Your task to perform on an android device: Do I have any events this weekend? Image 0: 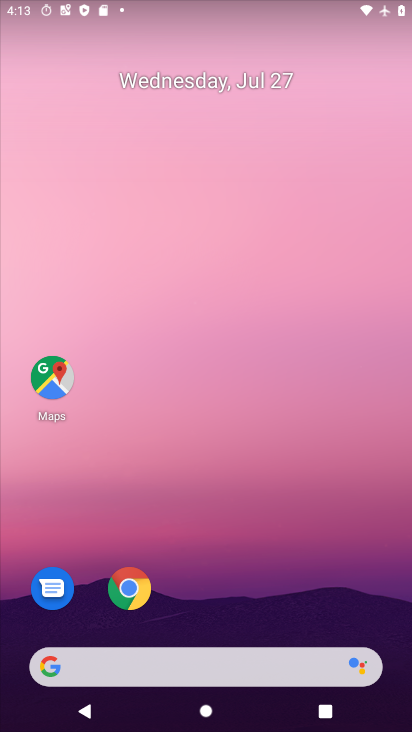
Step 0: press home button
Your task to perform on an android device: Do I have any events this weekend? Image 1: 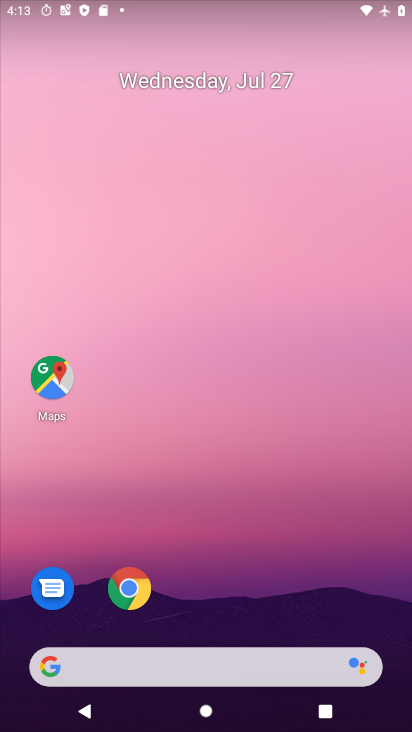
Step 1: drag from (240, 613) to (204, 129)
Your task to perform on an android device: Do I have any events this weekend? Image 2: 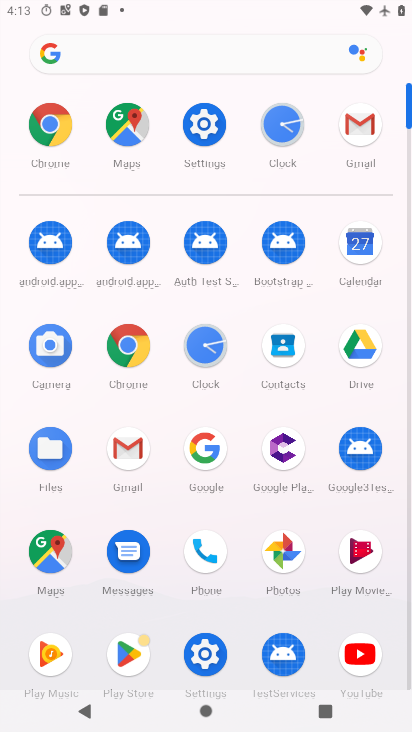
Step 2: click (356, 236)
Your task to perform on an android device: Do I have any events this weekend? Image 3: 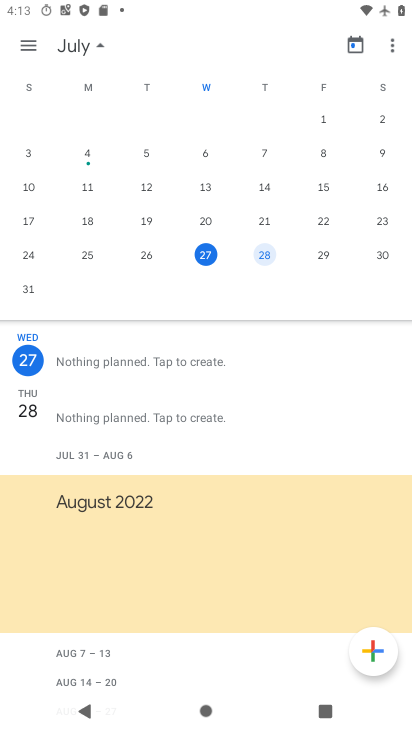
Step 3: click (32, 46)
Your task to perform on an android device: Do I have any events this weekend? Image 4: 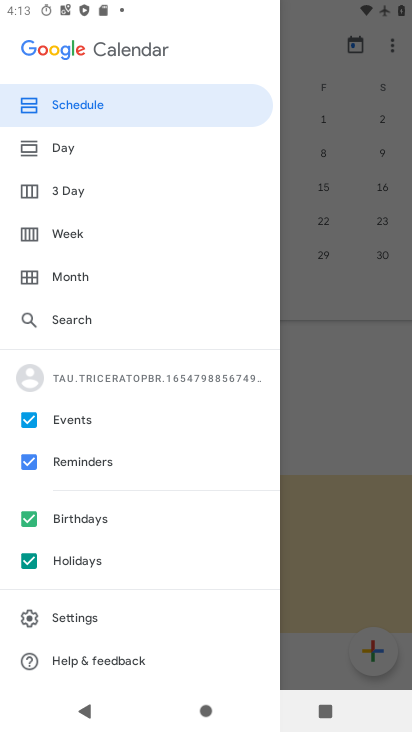
Step 4: click (88, 106)
Your task to perform on an android device: Do I have any events this weekend? Image 5: 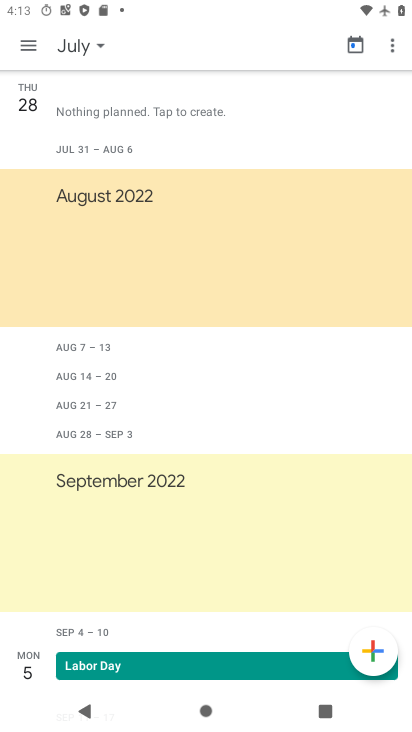
Step 5: press home button
Your task to perform on an android device: Do I have any events this weekend? Image 6: 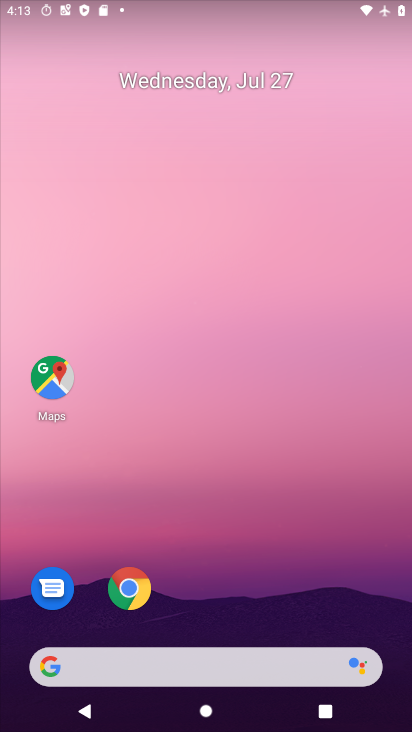
Step 6: drag from (277, 577) to (271, 85)
Your task to perform on an android device: Do I have any events this weekend? Image 7: 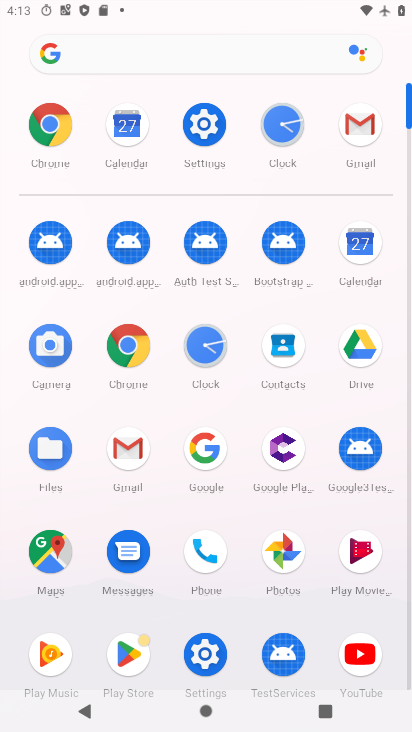
Step 7: click (358, 231)
Your task to perform on an android device: Do I have any events this weekend? Image 8: 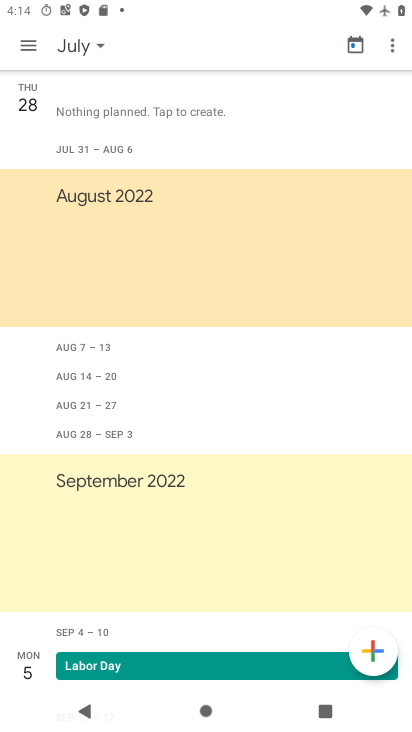
Step 8: click (30, 49)
Your task to perform on an android device: Do I have any events this weekend? Image 9: 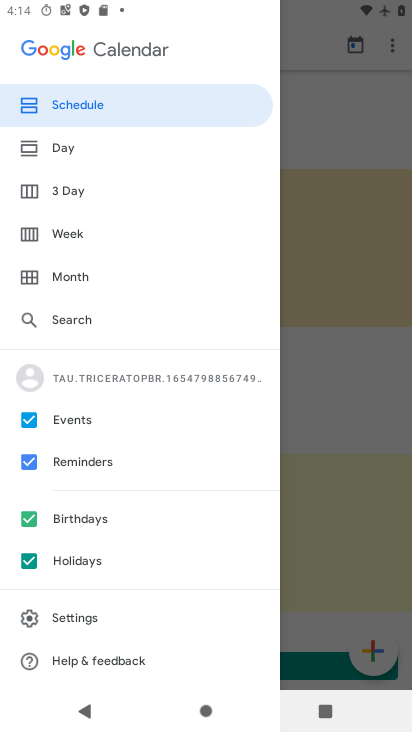
Step 9: click (87, 89)
Your task to perform on an android device: Do I have any events this weekend? Image 10: 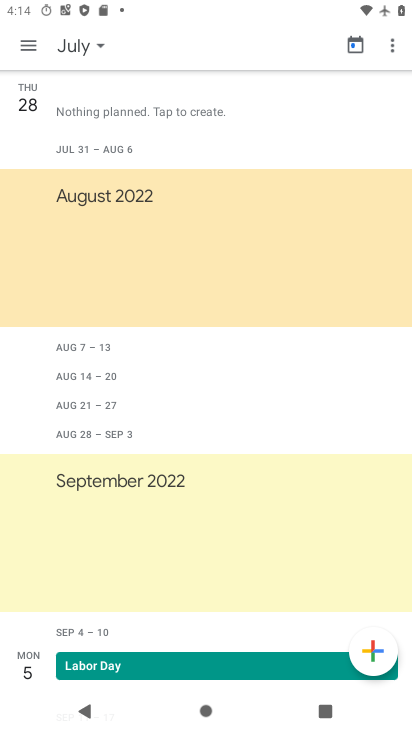
Step 10: click (23, 39)
Your task to perform on an android device: Do I have any events this weekend? Image 11: 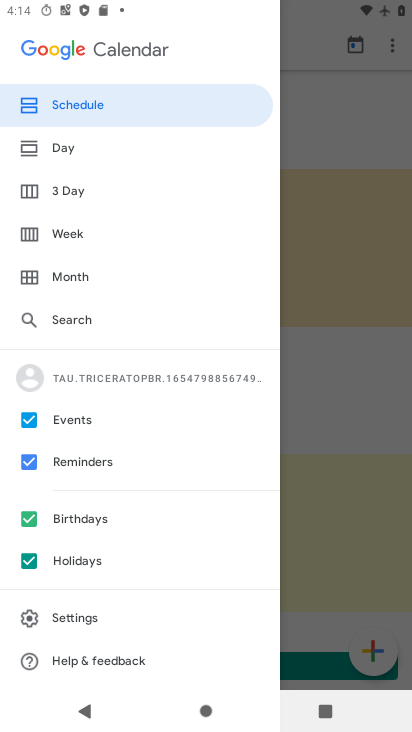
Step 11: click (170, 241)
Your task to perform on an android device: Do I have any events this weekend? Image 12: 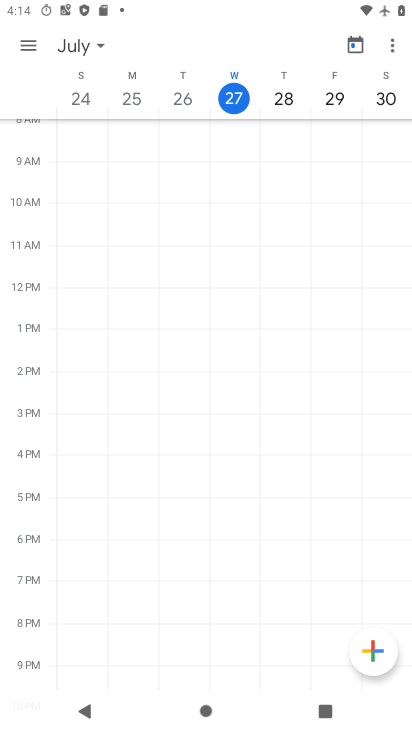
Step 12: task complete